Your task to perform on an android device: toggle airplane mode Image 0: 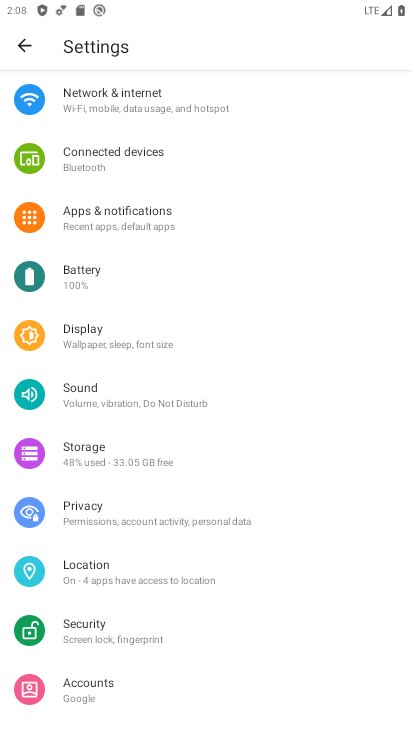
Step 0: drag from (223, 218) to (255, 540)
Your task to perform on an android device: toggle airplane mode Image 1: 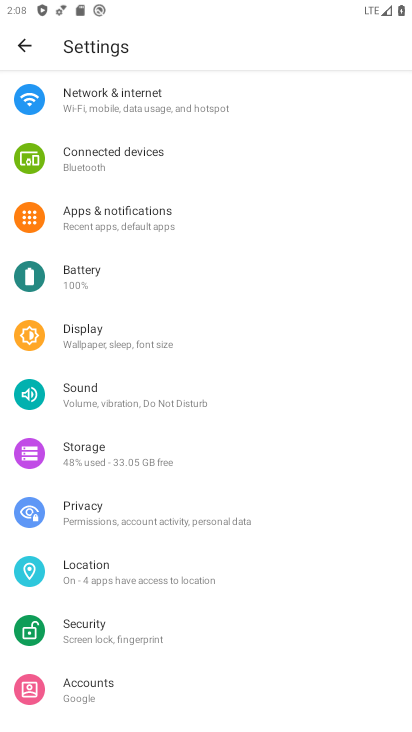
Step 1: click (235, 118)
Your task to perform on an android device: toggle airplane mode Image 2: 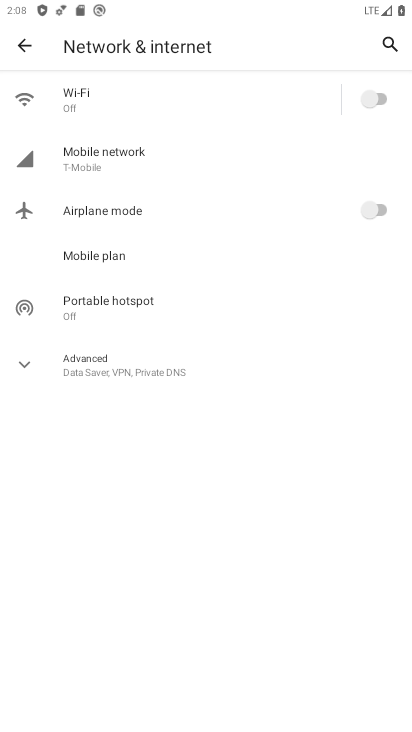
Step 2: click (386, 199)
Your task to perform on an android device: toggle airplane mode Image 3: 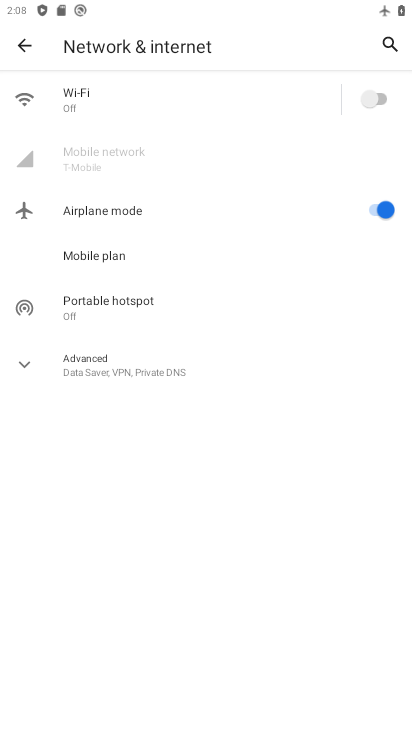
Step 3: task complete